Your task to perform on an android device: turn on the 12-hour format for clock Image 0: 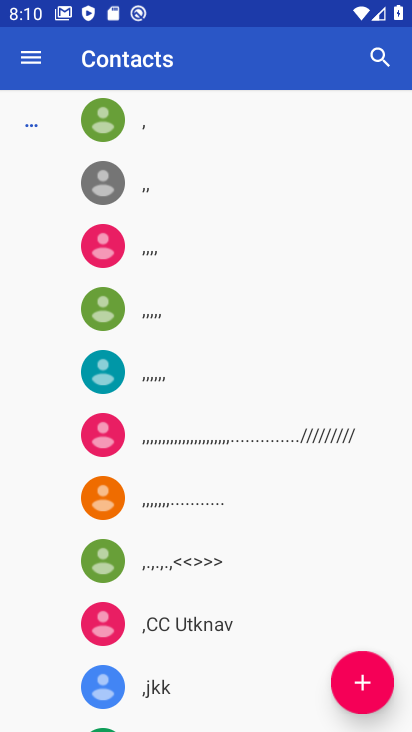
Step 0: press home button
Your task to perform on an android device: turn on the 12-hour format for clock Image 1: 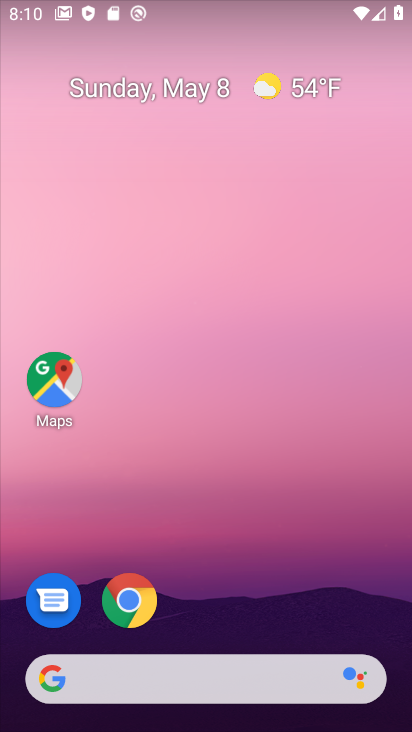
Step 1: drag from (200, 641) to (206, 139)
Your task to perform on an android device: turn on the 12-hour format for clock Image 2: 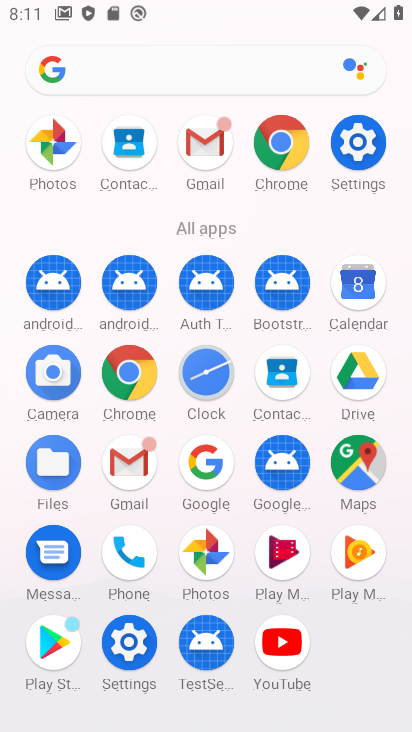
Step 2: click (207, 362)
Your task to perform on an android device: turn on the 12-hour format for clock Image 3: 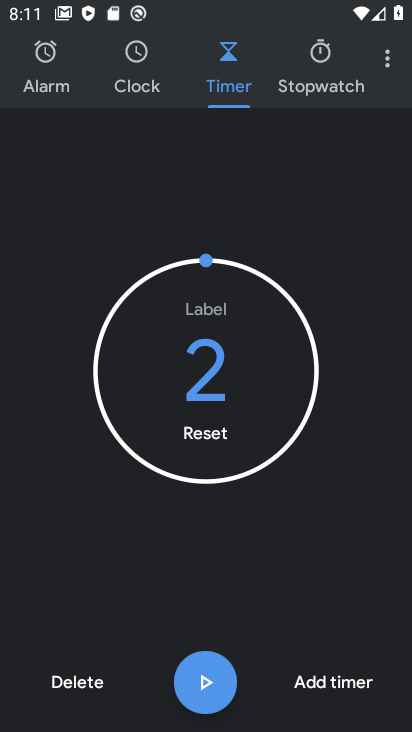
Step 3: click (379, 54)
Your task to perform on an android device: turn on the 12-hour format for clock Image 4: 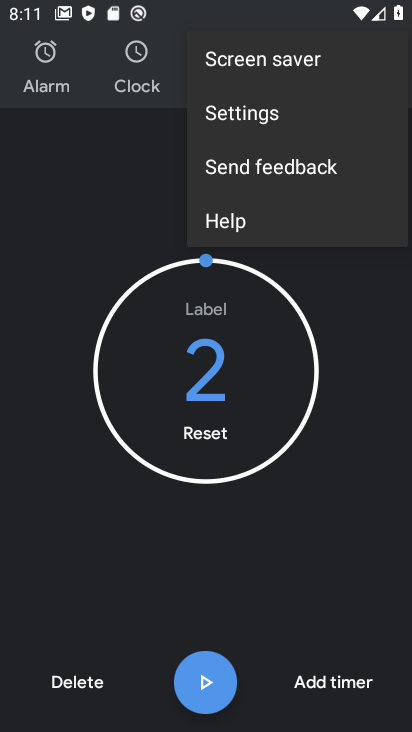
Step 4: click (318, 124)
Your task to perform on an android device: turn on the 12-hour format for clock Image 5: 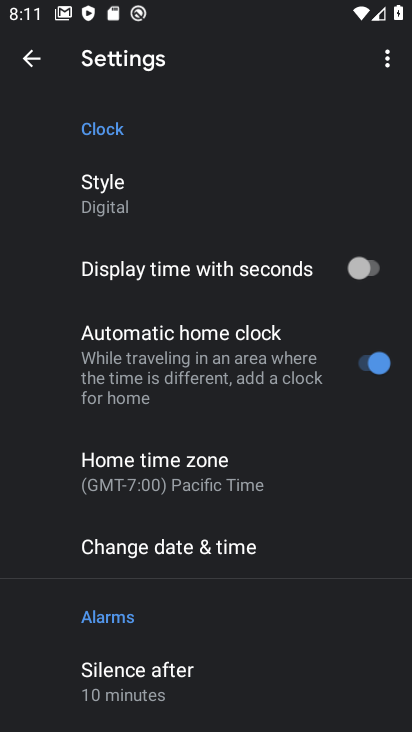
Step 5: click (253, 547)
Your task to perform on an android device: turn on the 12-hour format for clock Image 6: 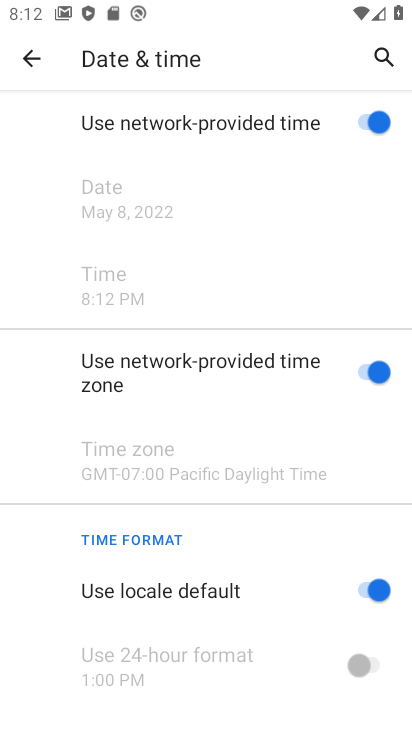
Step 6: task complete